Your task to perform on an android device: toggle improve location accuracy Image 0: 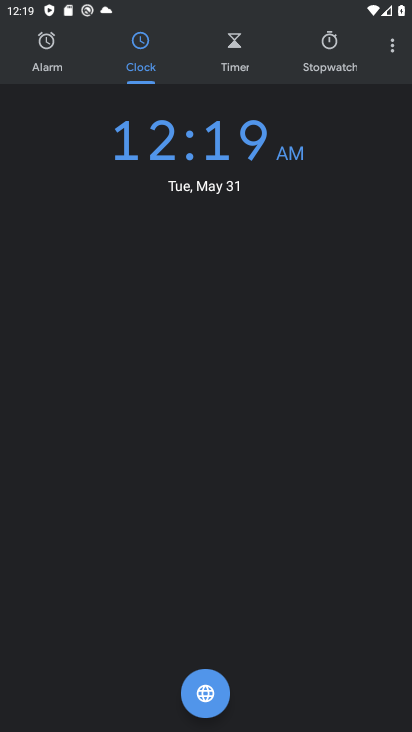
Step 0: press home button
Your task to perform on an android device: toggle improve location accuracy Image 1: 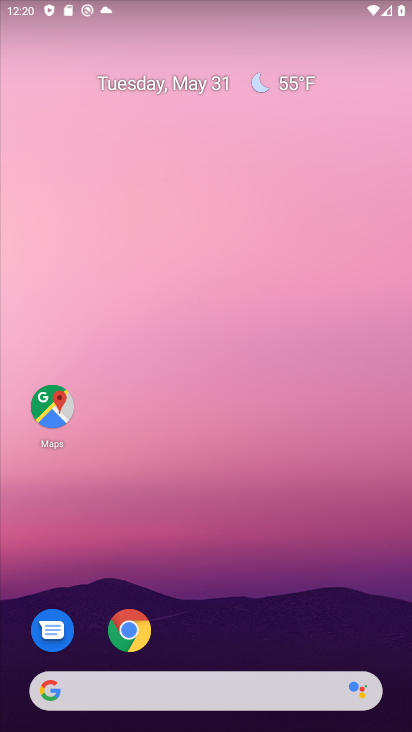
Step 1: drag from (156, 664) to (163, 273)
Your task to perform on an android device: toggle improve location accuracy Image 2: 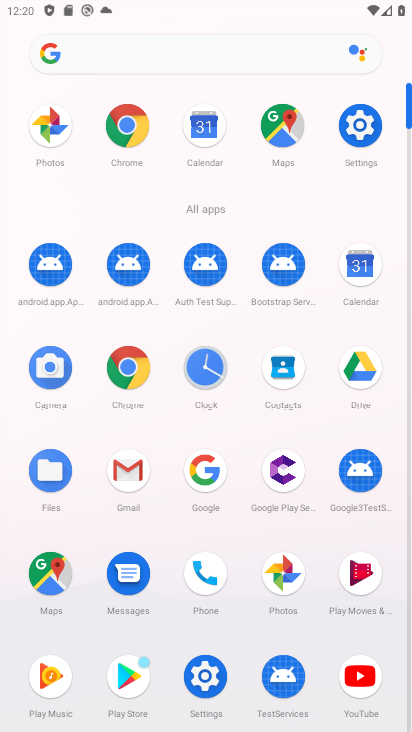
Step 2: click (357, 127)
Your task to perform on an android device: toggle improve location accuracy Image 3: 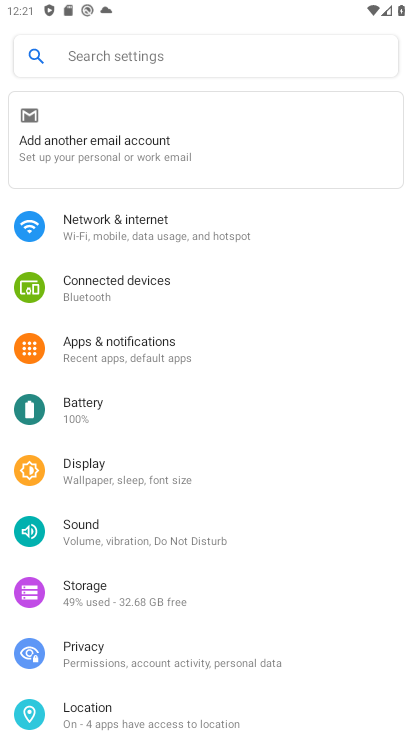
Step 3: click (109, 715)
Your task to perform on an android device: toggle improve location accuracy Image 4: 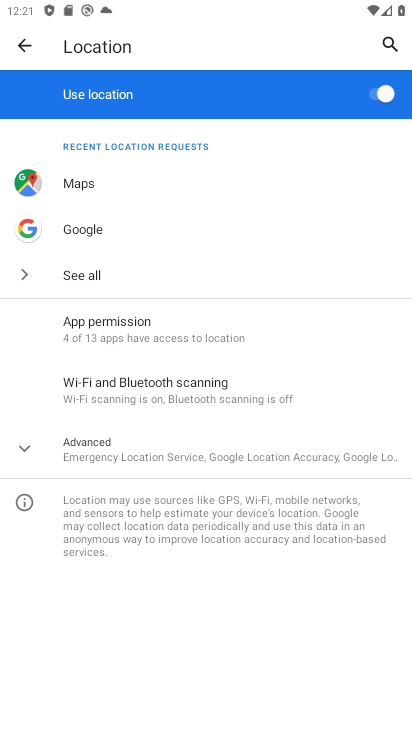
Step 4: click (140, 456)
Your task to perform on an android device: toggle improve location accuracy Image 5: 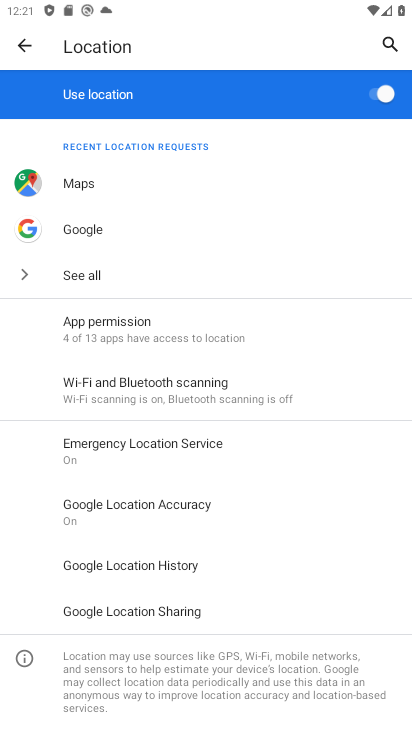
Step 5: click (185, 511)
Your task to perform on an android device: toggle improve location accuracy Image 6: 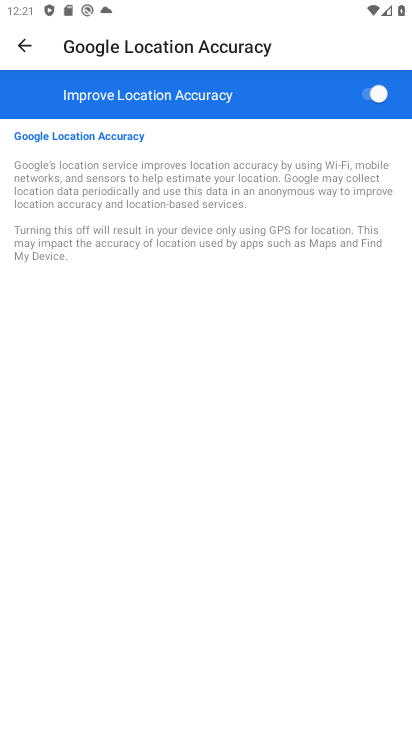
Step 6: click (370, 96)
Your task to perform on an android device: toggle improve location accuracy Image 7: 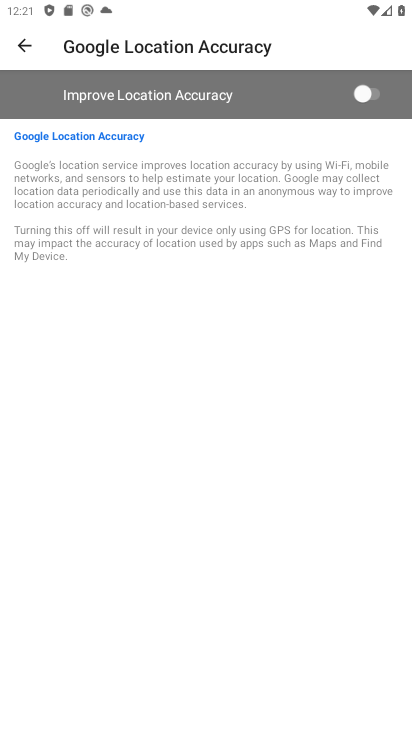
Step 7: task complete